Your task to perform on an android device: Open sound settings Image 0: 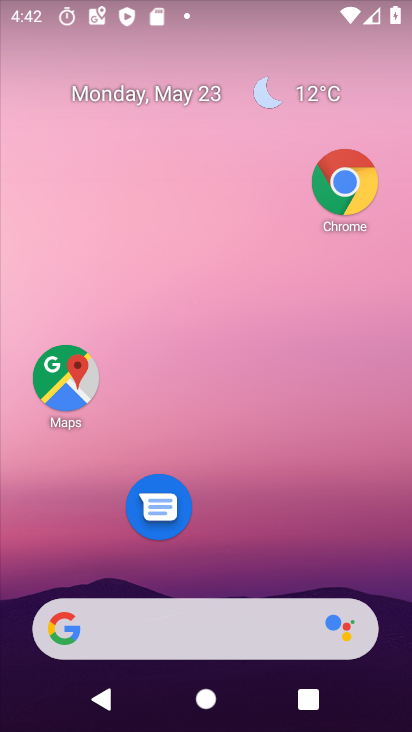
Step 0: drag from (222, 581) to (228, 136)
Your task to perform on an android device: Open sound settings Image 1: 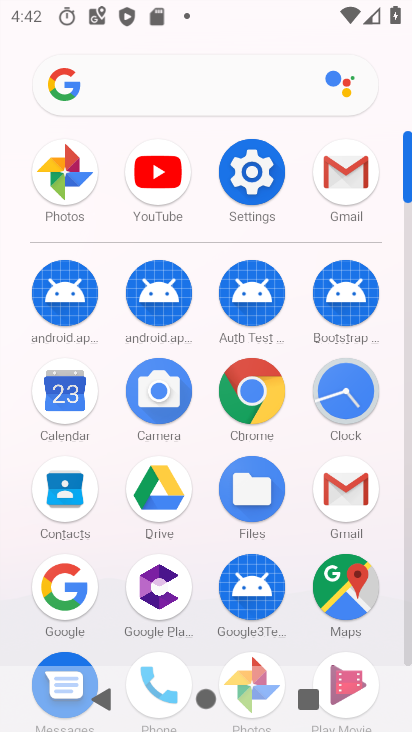
Step 1: click (262, 191)
Your task to perform on an android device: Open sound settings Image 2: 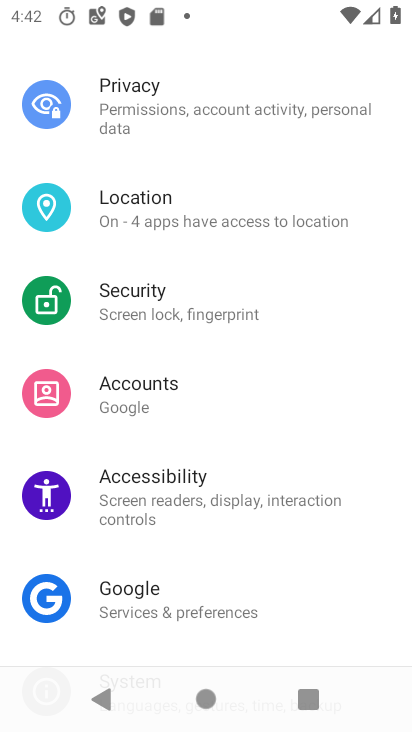
Step 2: drag from (147, 577) to (183, 141)
Your task to perform on an android device: Open sound settings Image 3: 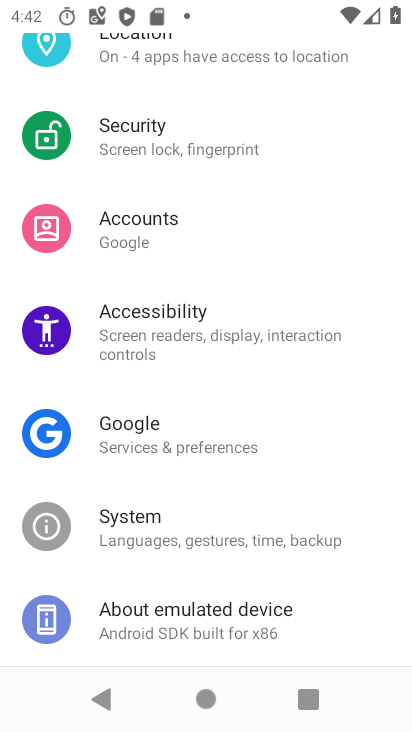
Step 3: drag from (160, 175) to (172, 711)
Your task to perform on an android device: Open sound settings Image 4: 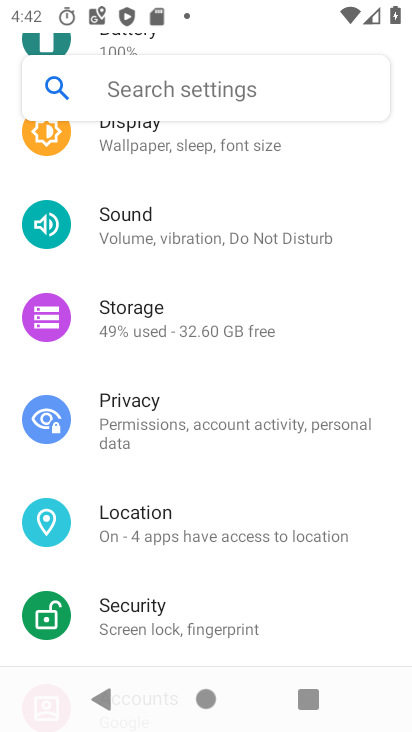
Step 4: click (99, 218)
Your task to perform on an android device: Open sound settings Image 5: 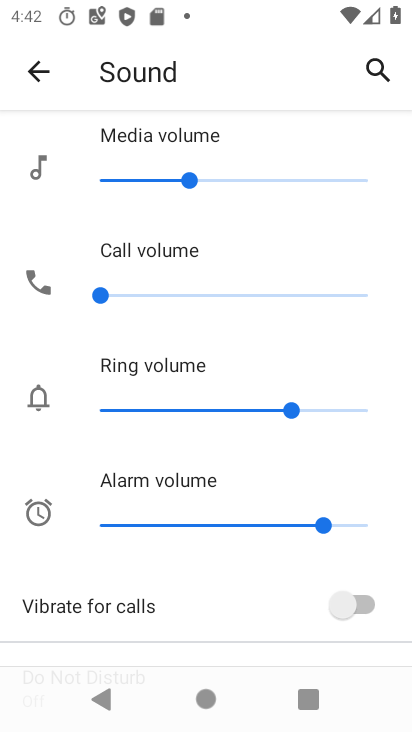
Step 5: task complete